Your task to perform on an android device: Open privacy settings Image 0: 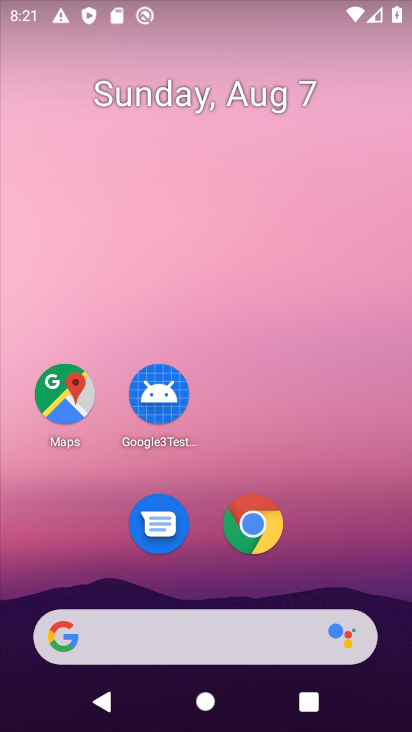
Step 0: drag from (232, 572) to (89, 144)
Your task to perform on an android device: Open privacy settings Image 1: 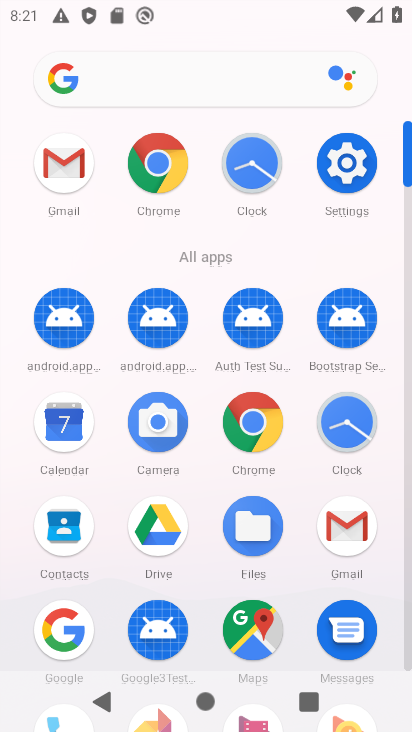
Step 1: click (340, 151)
Your task to perform on an android device: Open privacy settings Image 2: 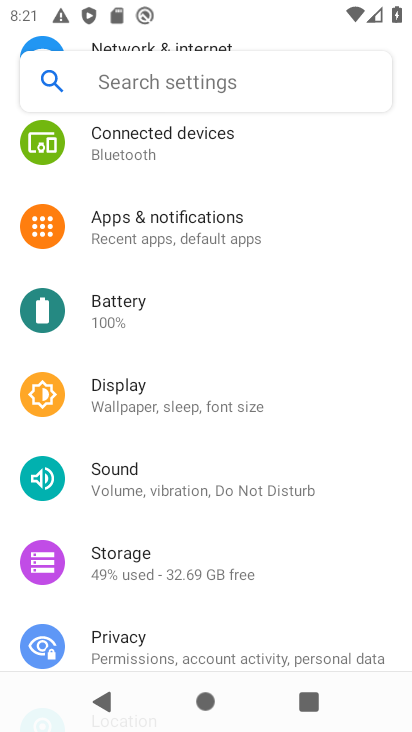
Step 2: click (126, 629)
Your task to perform on an android device: Open privacy settings Image 3: 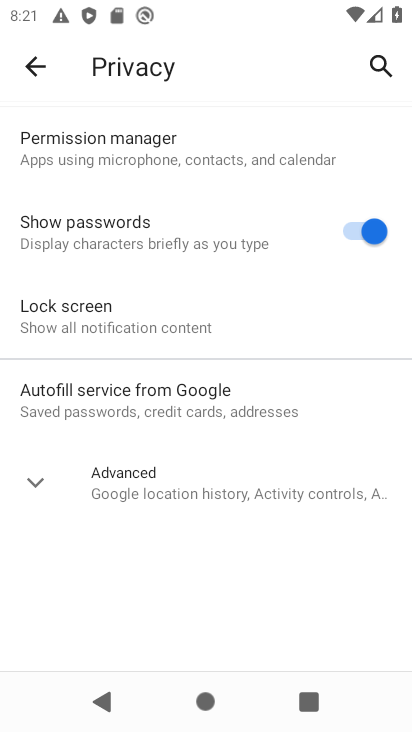
Step 3: task complete